Your task to perform on an android device: Is it going to rain today? Image 0: 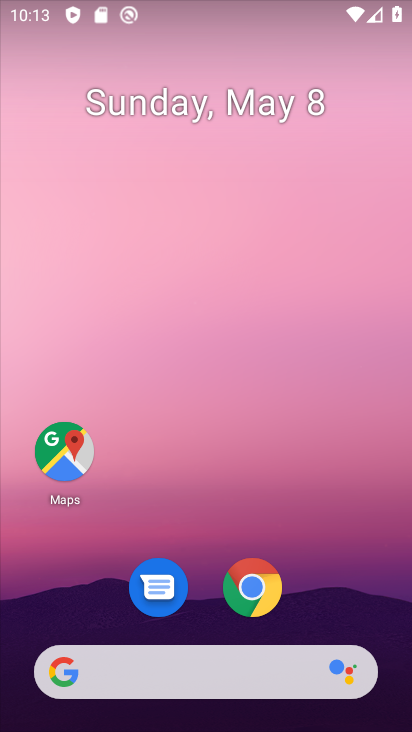
Step 0: drag from (3, 280) to (411, 445)
Your task to perform on an android device: Is it going to rain today? Image 1: 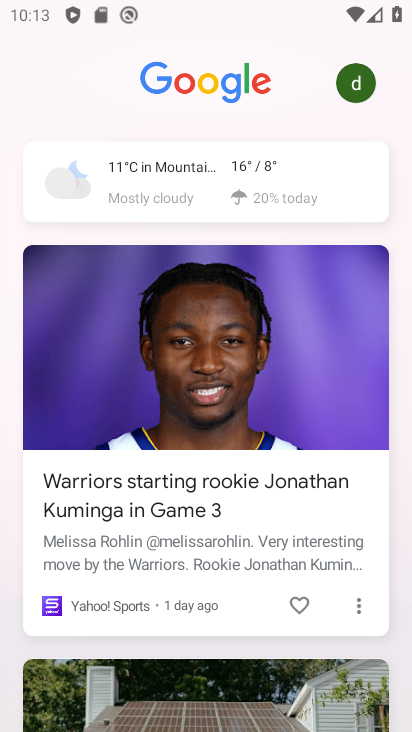
Step 1: click (191, 186)
Your task to perform on an android device: Is it going to rain today? Image 2: 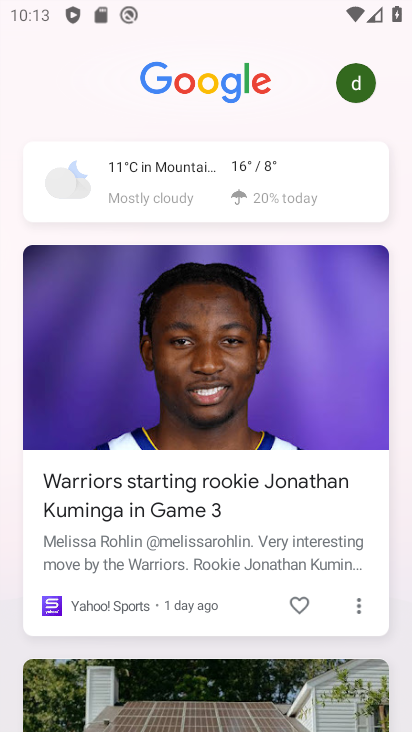
Step 2: click (190, 188)
Your task to perform on an android device: Is it going to rain today? Image 3: 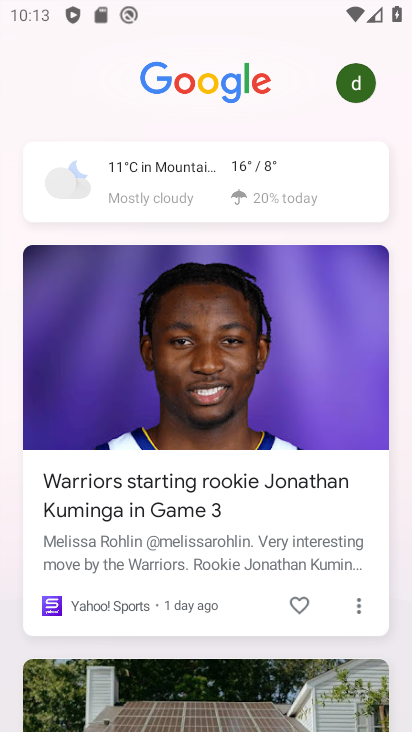
Step 3: click (190, 189)
Your task to perform on an android device: Is it going to rain today? Image 4: 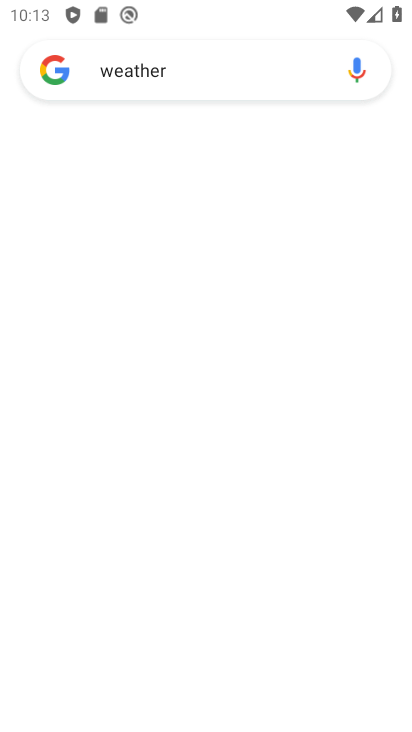
Step 4: click (190, 189)
Your task to perform on an android device: Is it going to rain today? Image 5: 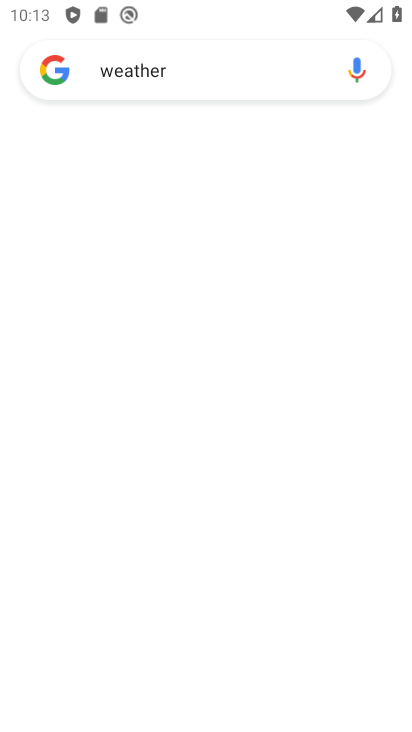
Step 5: click (190, 189)
Your task to perform on an android device: Is it going to rain today? Image 6: 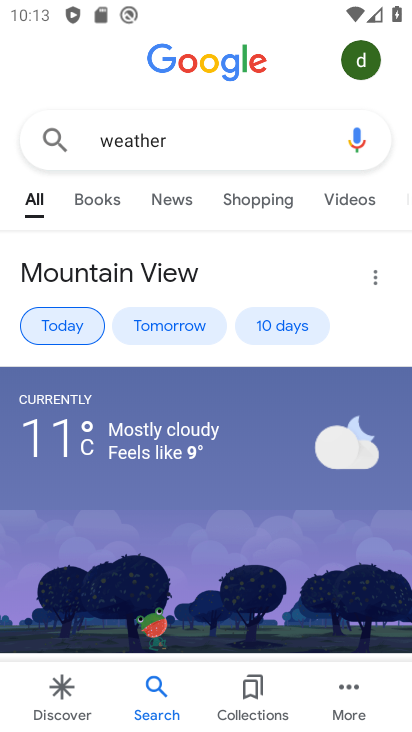
Step 6: click (166, 326)
Your task to perform on an android device: Is it going to rain today? Image 7: 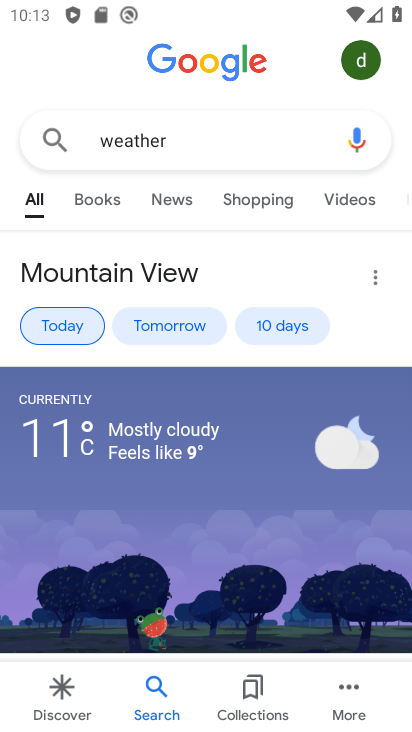
Step 7: click (166, 326)
Your task to perform on an android device: Is it going to rain today? Image 8: 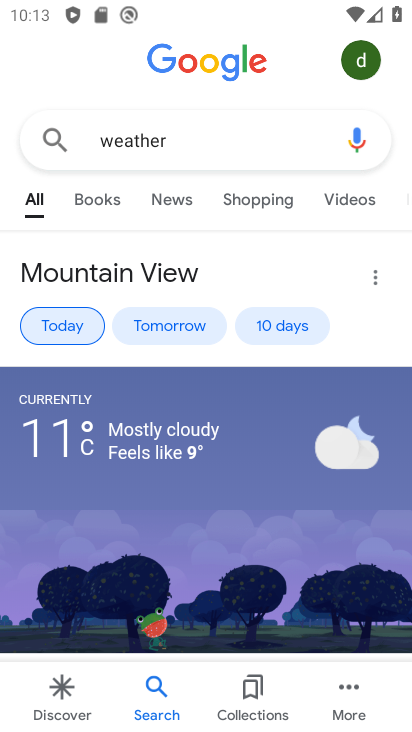
Step 8: click (166, 326)
Your task to perform on an android device: Is it going to rain today? Image 9: 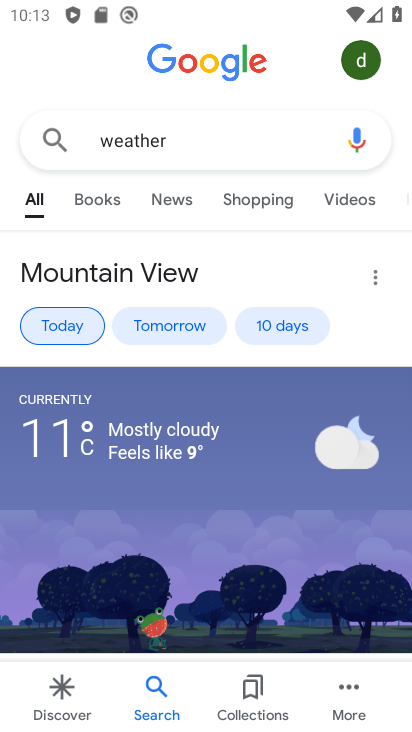
Step 9: click (166, 326)
Your task to perform on an android device: Is it going to rain today? Image 10: 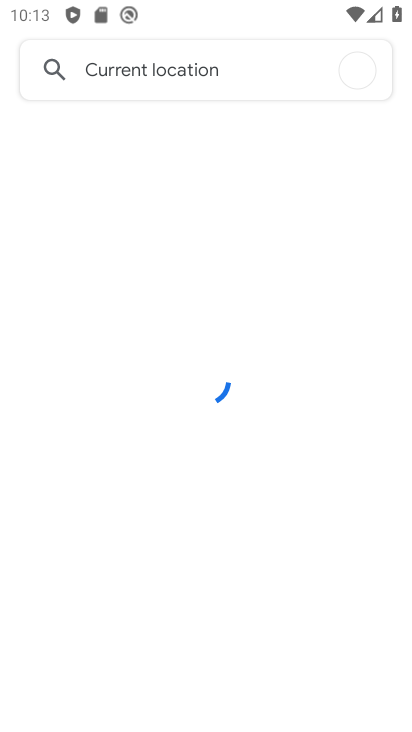
Step 10: click (167, 329)
Your task to perform on an android device: Is it going to rain today? Image 11: 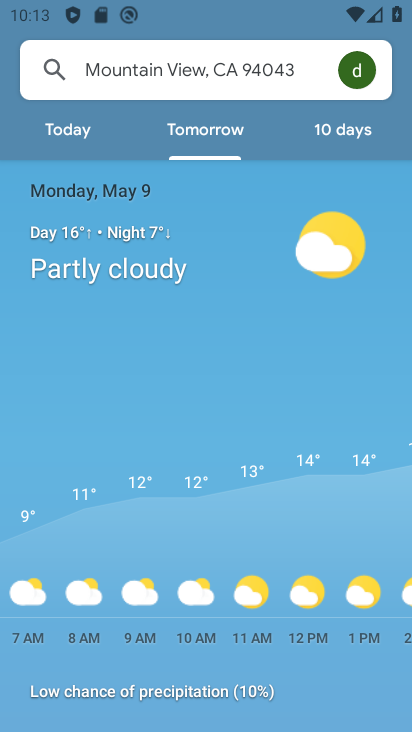
Step 11: task complete